Your task to perform on an android device: check android version Image 0: 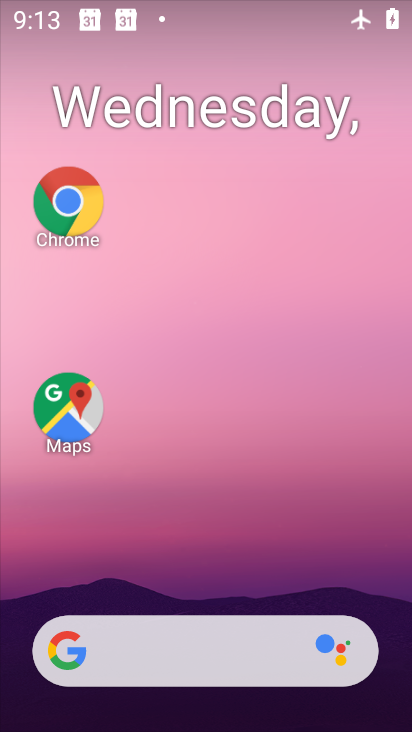
Step 0: drag from (246, 583) to (190, 11)
Your task to perform on an android device: check android version Image 1: 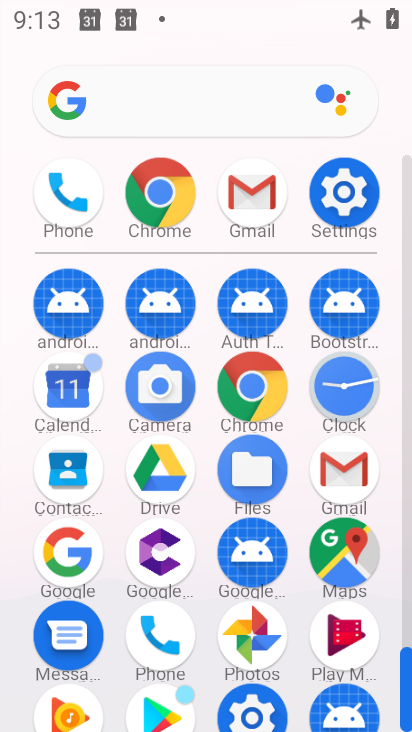
Step 1: click (339, 204)
Your task to perform on an android device: check android version Image 2: 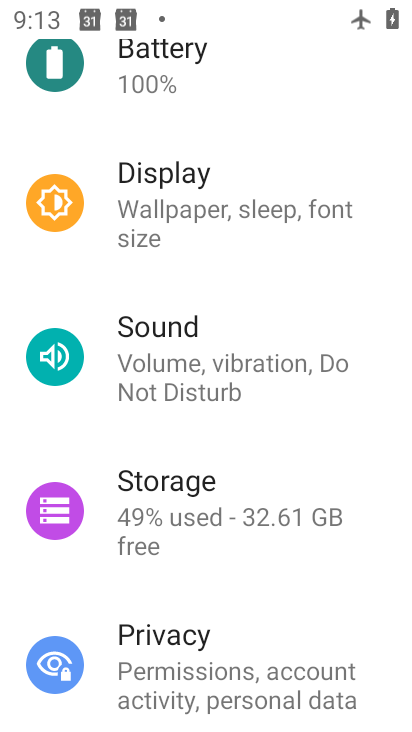
Step 2: drag from (132, 571) to (45, 31)
Your task to perform on an android device: check android version Image 3: 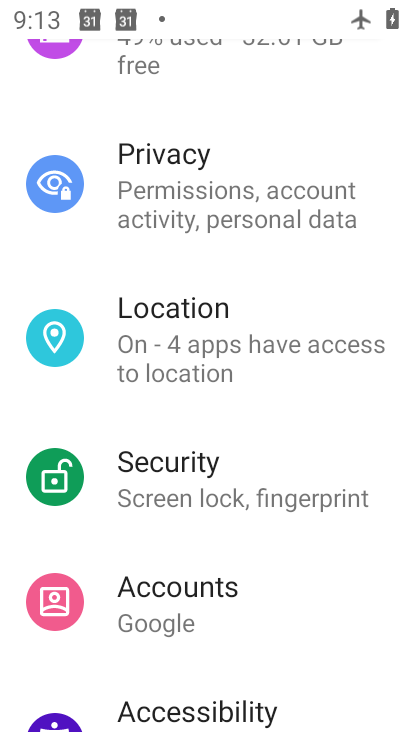
Step 3: drag from (62, 664) to (147, 157)
Your task to perform on an android device: check android version Image 4: 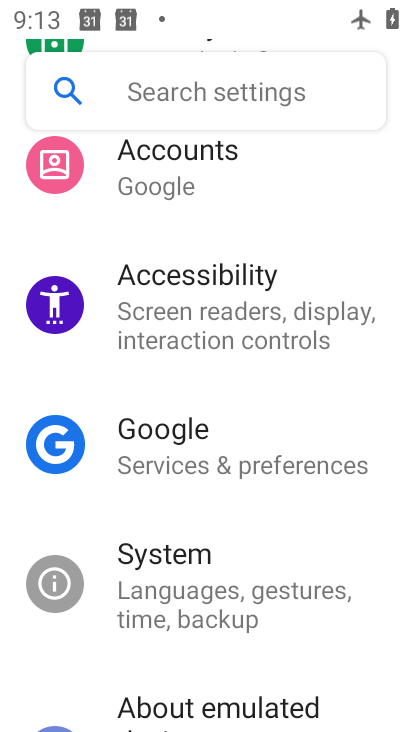
Step 4: click (155, 601)
Your task to perform on an android device: check android version Image 5: 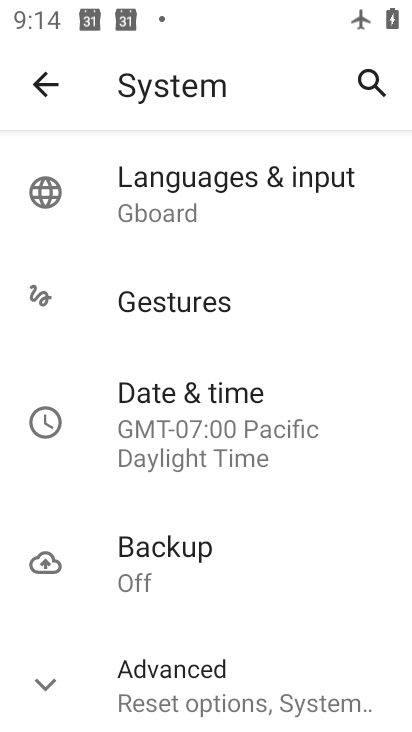
Step 5: click (42, 84)
Your task to perform on an android device: check android version Image 6: 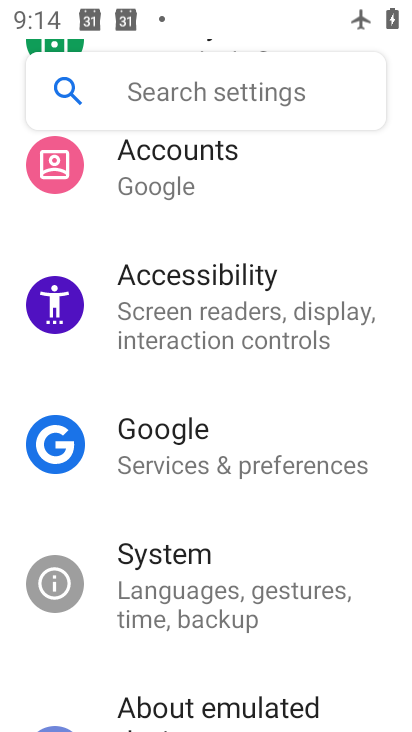
Step 6: click (137, 694)
Your task to perform on an android device: check android version Image 7: 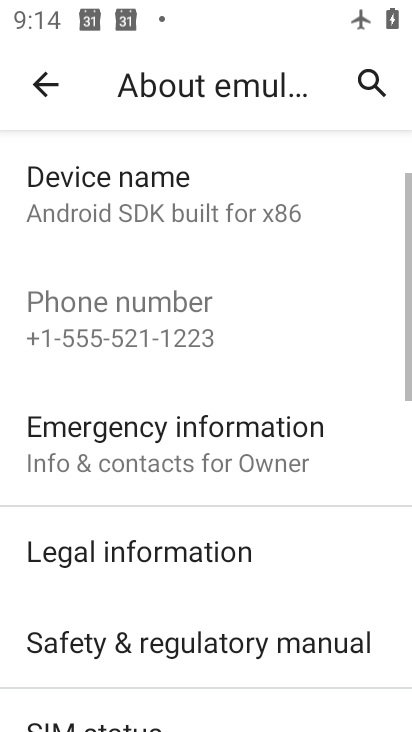
Step 7: drag from (130, 606) to (130, 7)
Your task to perform on an android device: check android version Image 8: 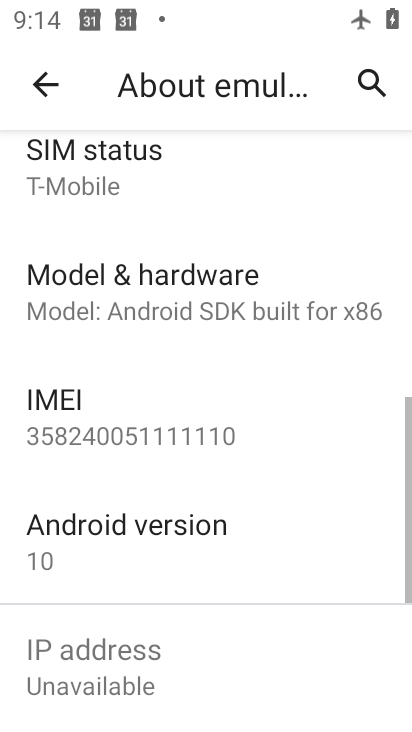
Step 8: click (44, 588)
Your task to perform on an android device: check android version Image 9: 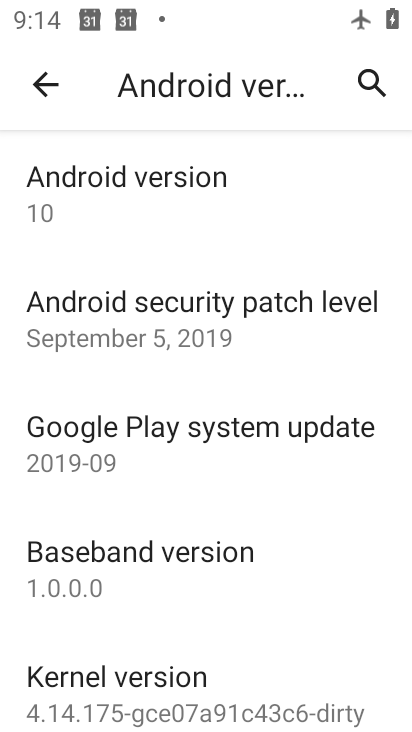
Step 9: task complete